Your task to perform on an android device: turn off wifi Image 0: 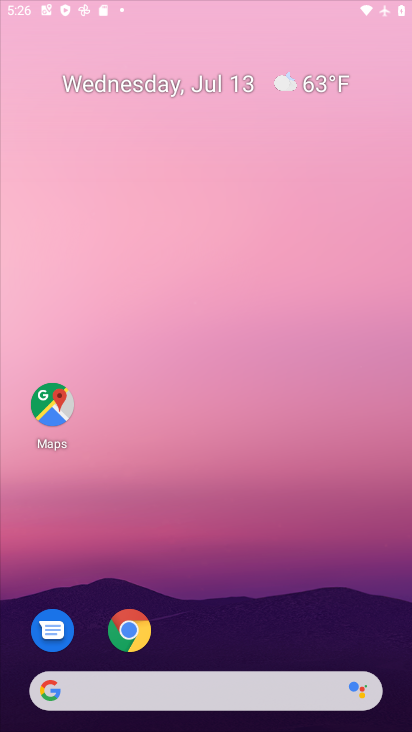
Step 0: press home button
Your task to perform on an android device: turn off wifi Image 1: 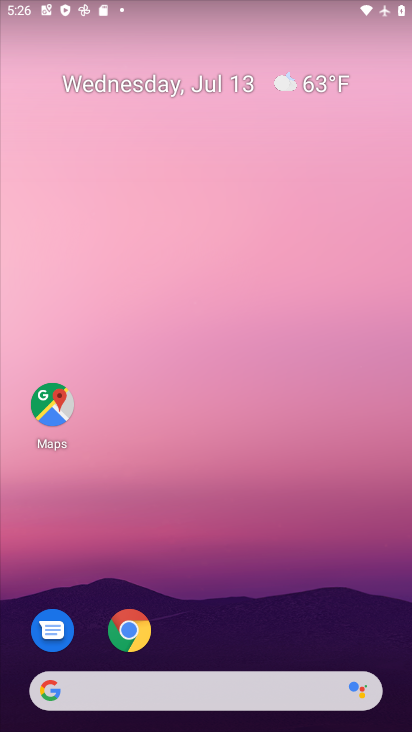
Step 1: drag from (170, 17) to (149, 493)
Your task to perform on an android device: turn off wifi Image 2: 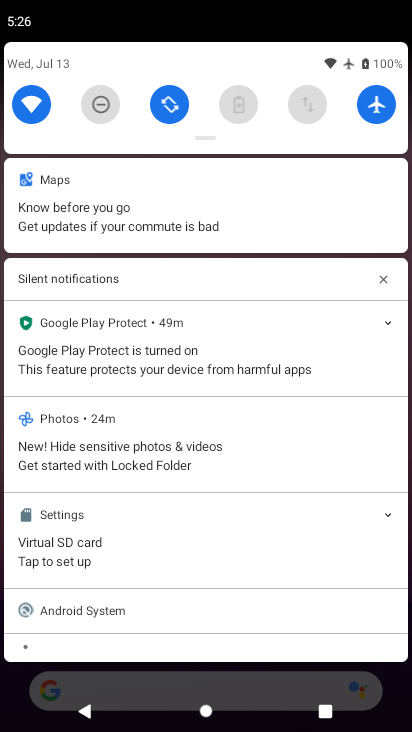
Step 2: click (27, 99)
Your task to perform on an android device: turn off wifi Image 3: 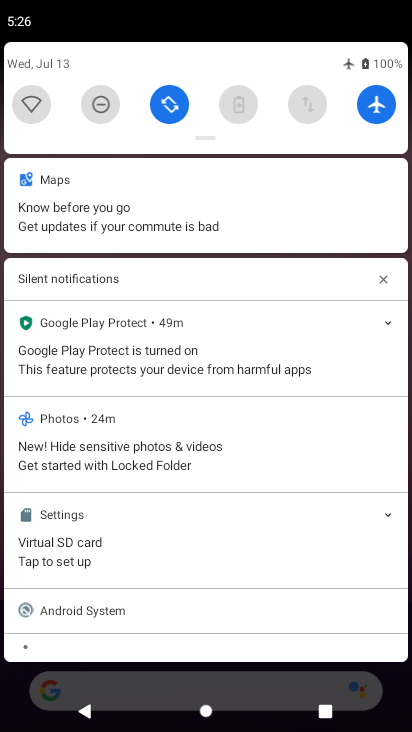
Step 3: task complete